Your task to perform on an android device: turn on priority inbox in the gmail app Image 0: 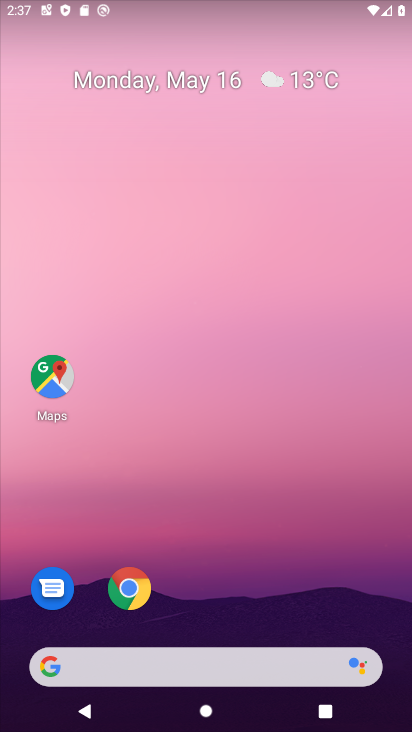
Step 0: drag from (232, 662) to (299, 3)
Your task to perform on an android device: turn on priority inbox in the gmail app Image 1: 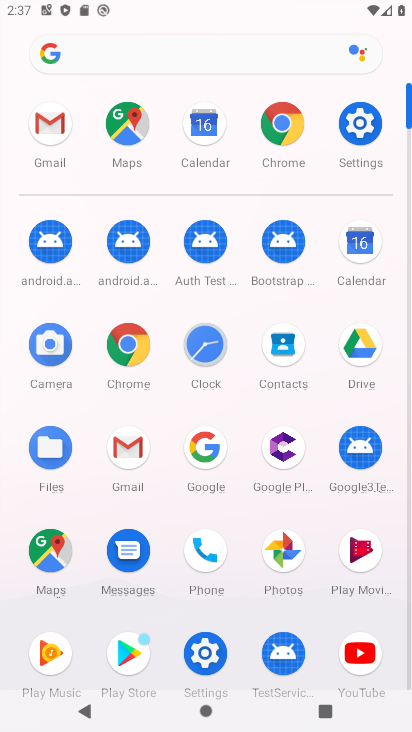
Step 1: click (108, 447)
Your task to perform on an android device: turn on priority inbox in the gmail app Image 2: 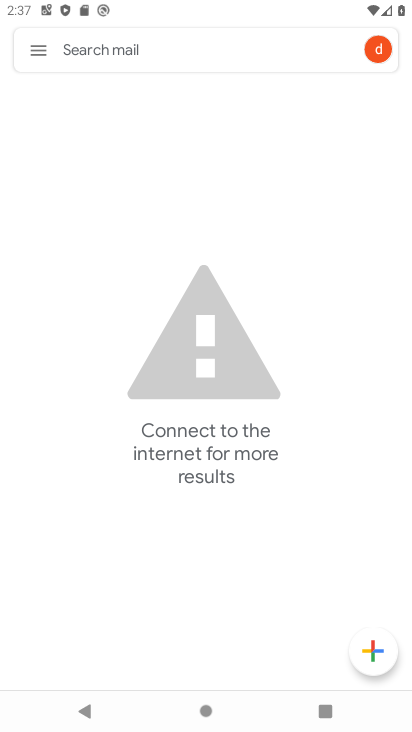
Step 2: click (29, 35)
Your task to perform on an android device: turn on priority inbox in the gmail app Image 3: 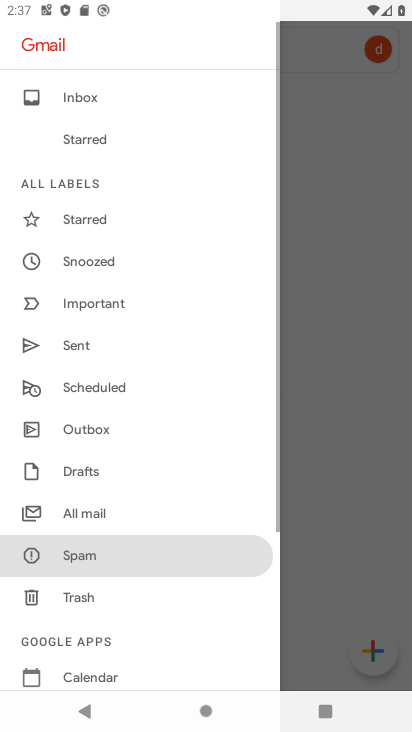
Step 3: drag from (111, 595) to (255, 62)
Your task to perform on an android device: turn on priority inbox in the gmail app Image 4: 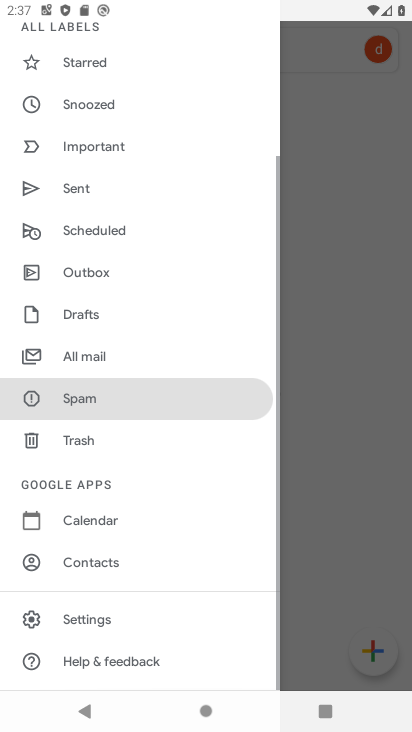
Step 4: click (130, 623)
Your task to perform on an android device: turn on priority inbox in the gmail app Image 5: 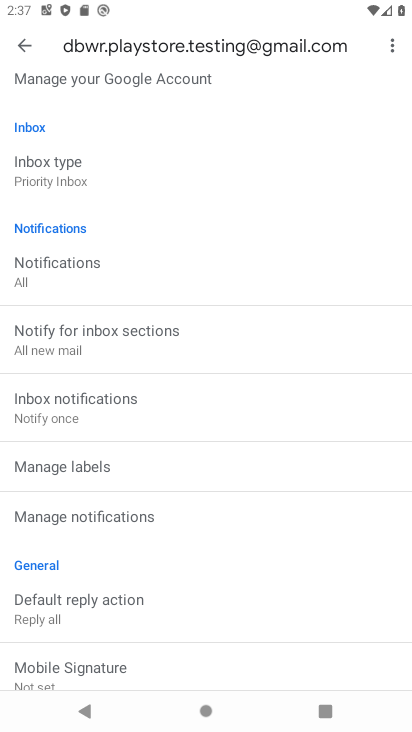
Step 5: drag from (125, 661) to (106, 729)
Your task to perform on an android device: turn on priority inbox in the gmail app Image 6: 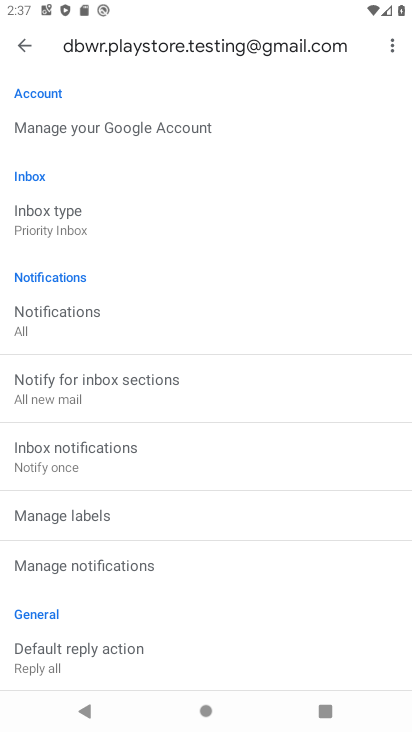
Step 6: click (96, 210)
Your task to perform on an android device: turn on priority inbox in the gmail app Image 7: 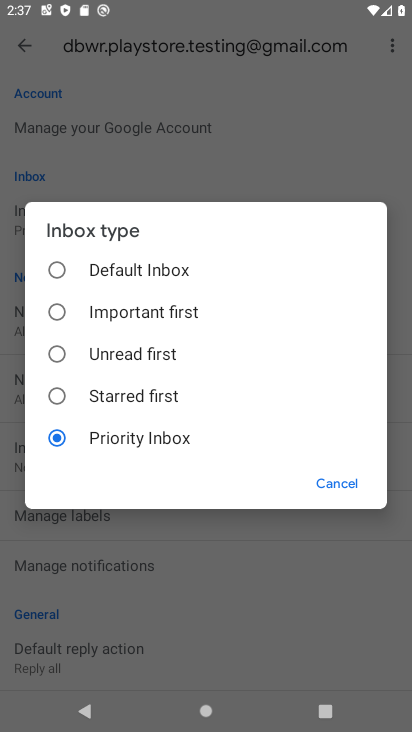
Step 7: task complete